Your task to perform on an android device: Turn on the flashlight Image 0: 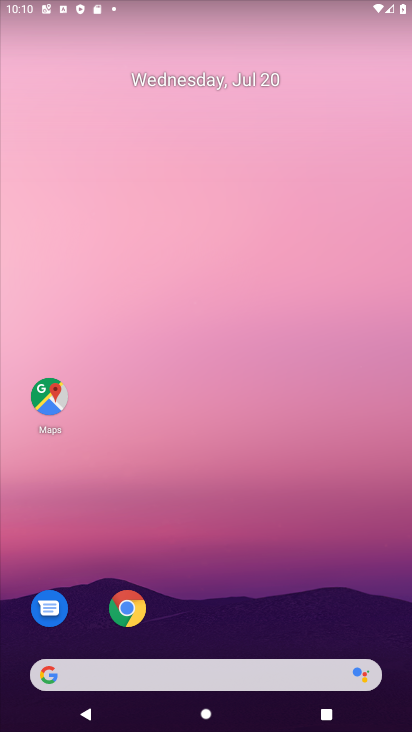
Step 0: drag from (201, 602) to (150, 188)
Your task to perform on an android device: Turn on the flashlight Image 1: 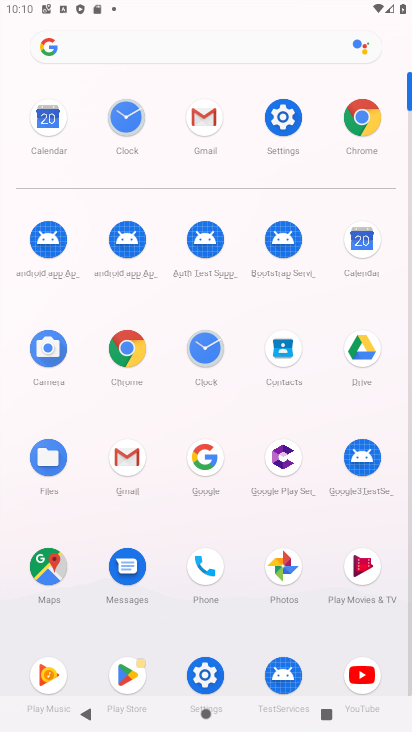
Step 1: click (288, 123)
Your task to perform on an android device: Turn on the flashlight Image 2: 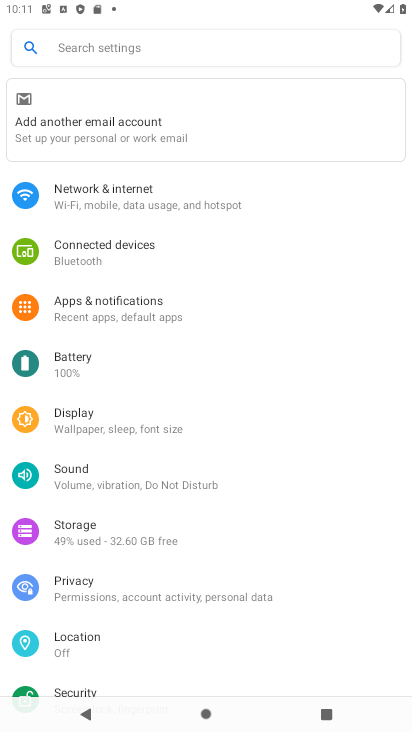
Step 2: task complete